Your task to perform on an android device: Open Google Image 0: 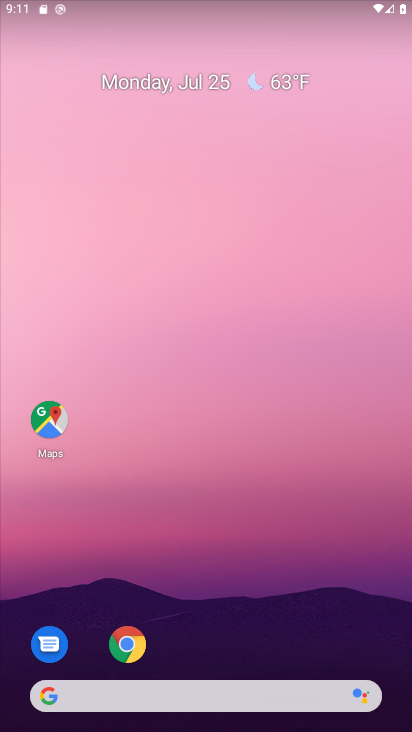
Step 0: drag from (388, 561) to (232, 230)
Your task to perform on an android device: Open Google Image 1: 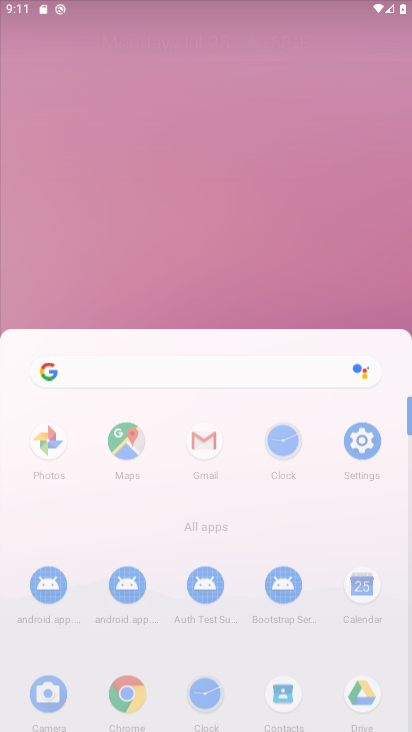
Step 1: click (199, 246)
Your task to perform on an android device: Open Google Image 2: 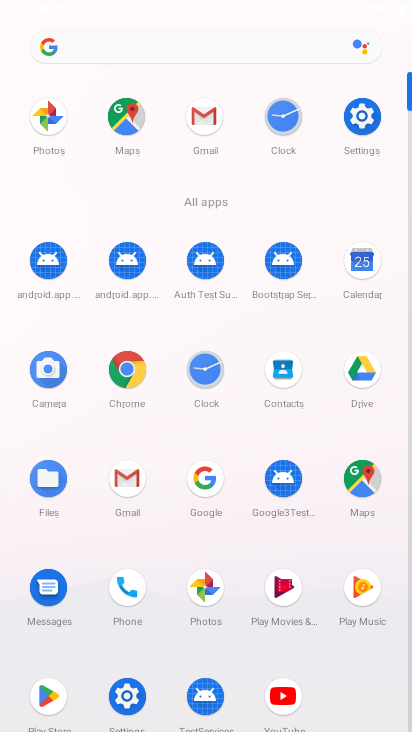
Step 2: drag from (243, 626) to (238, 259)
Your task to perform on an android device: Open Google Image 3: 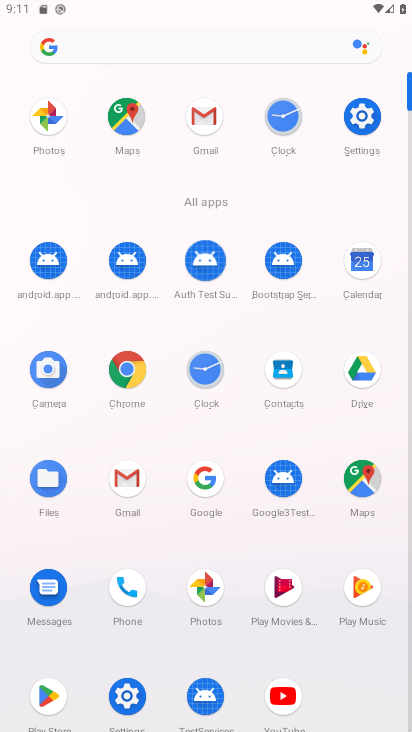
Step 3: drag from (293, 692) to (289, 362)
Your task to perform on an android device: Open Google Image 4: 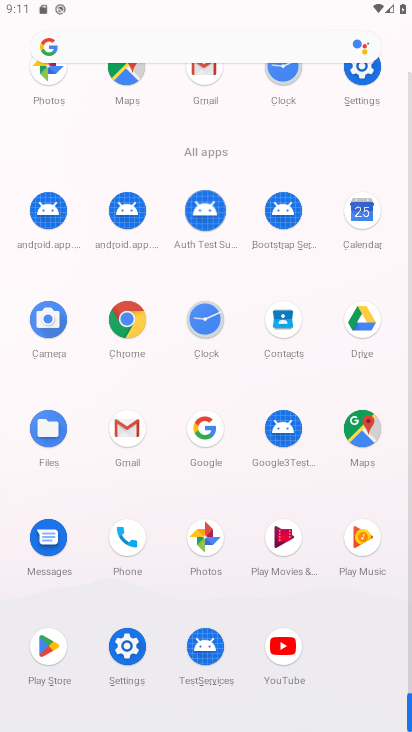
Step 4: drag from (333, 699) to (300, 445)
Your task to perform on an android device: Open Google Image 5: 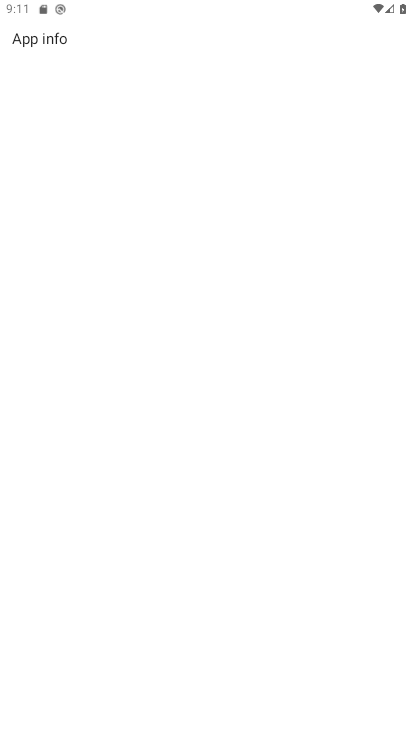
Step 5: press back button
Your task to perform on an android device: Open Google Image 6: 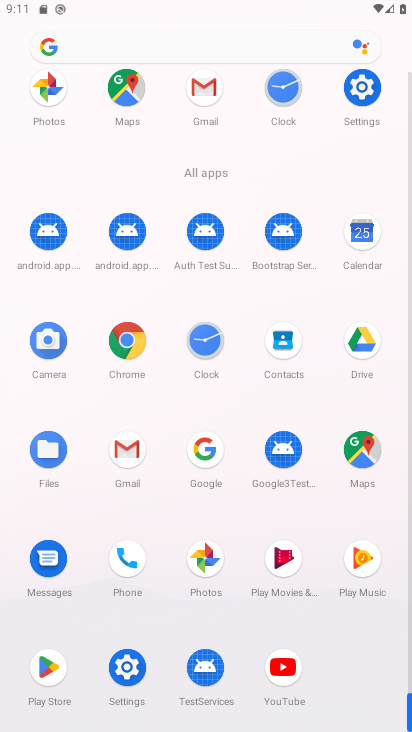
Step 6: click (204, 451)
Your task to perform on an android device: Open Google Image 7: 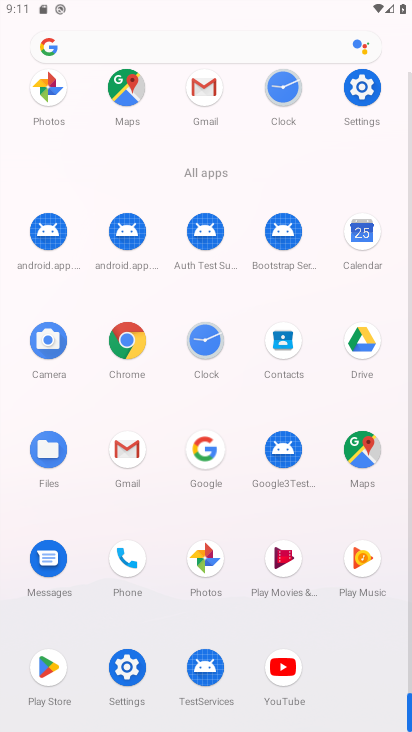
Step 7: click (215, 458)
Your task to perform on an android device: Open Google Image 8: 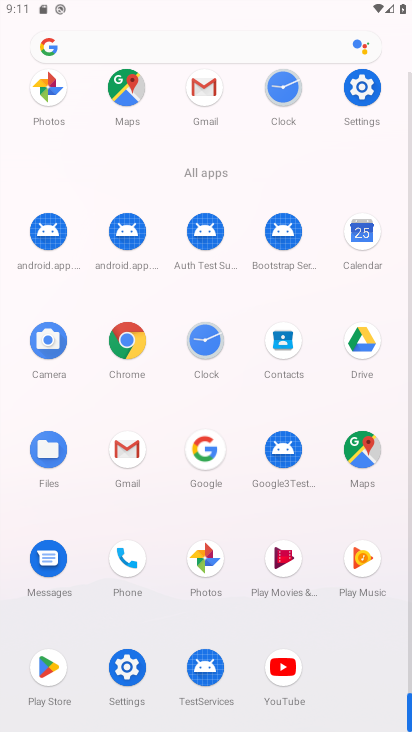
Step 8: click (218, 458)
Your task to perform on an android device: Open Google Image 9: 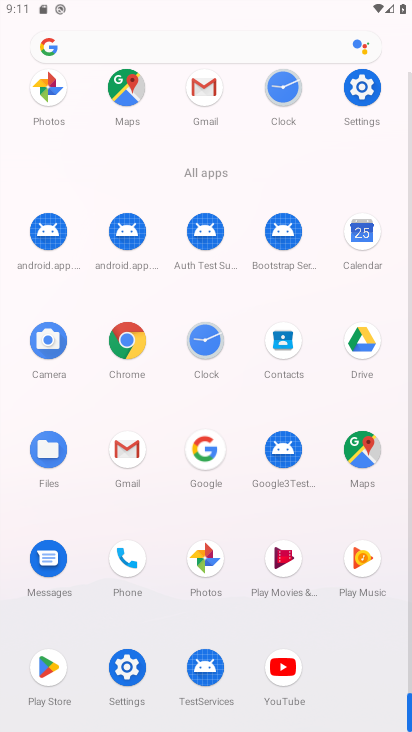
Step 9: click (210, 446)
Your task to perform on an android device: Open Google Image 10: 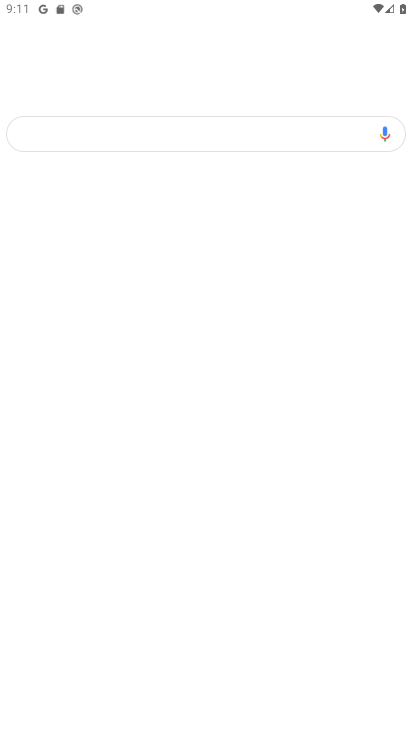
Step 10: click (211, 445)
Your task to perform on an android device: Open Google Image 11: 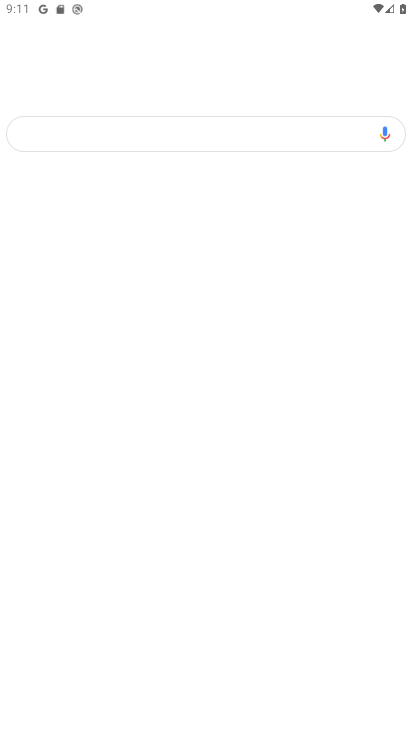
Step 11: click (218, 444)
Your task to perform on an android device: Open Google Image 12: 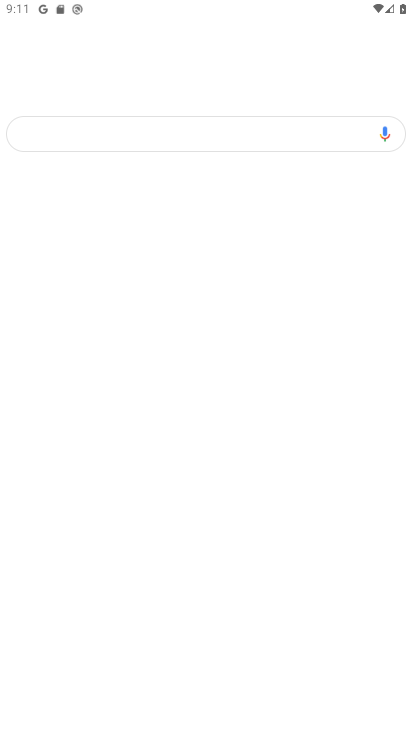
Step 12: click (224, 437)
Your task to perform on an android device: Open Google Image 13: 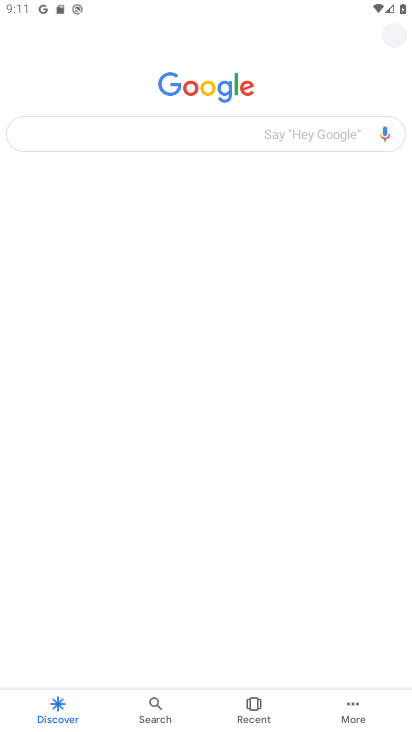
Step 13: task complete